Your task to perform on an android device: see sites visited before in the chrome app Image 0: 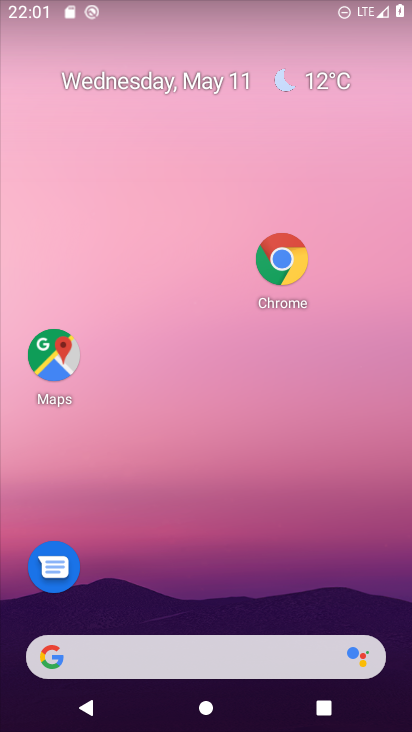
Step 0: drag from (166, 655) to (256, 249)
Your task to perform on an android device: see sites visited before in the chrome app Image 1: 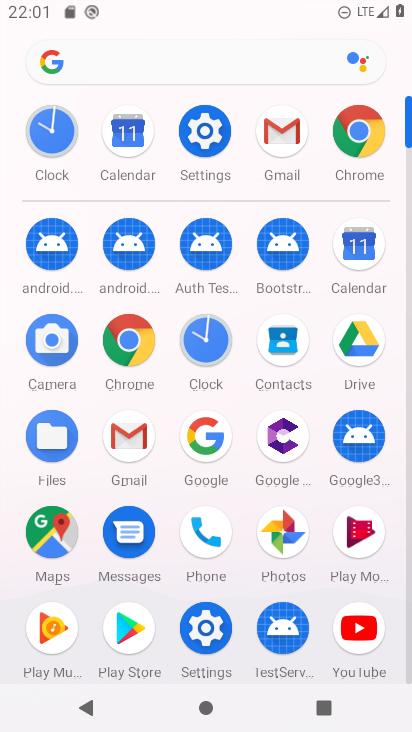
Step 1: click (355, 133)
Your task to perform on an android device: see sites visited before in the chrome app Image 2: 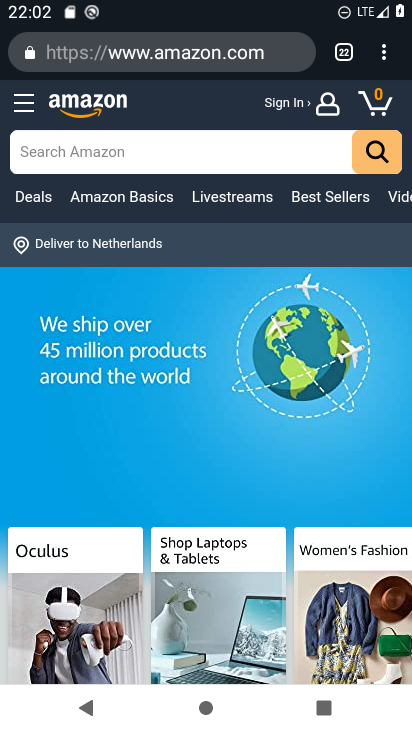
Step 2: task complete